Your task to perform on an android device: Open Youtube and go to "Your channel" Image 0: 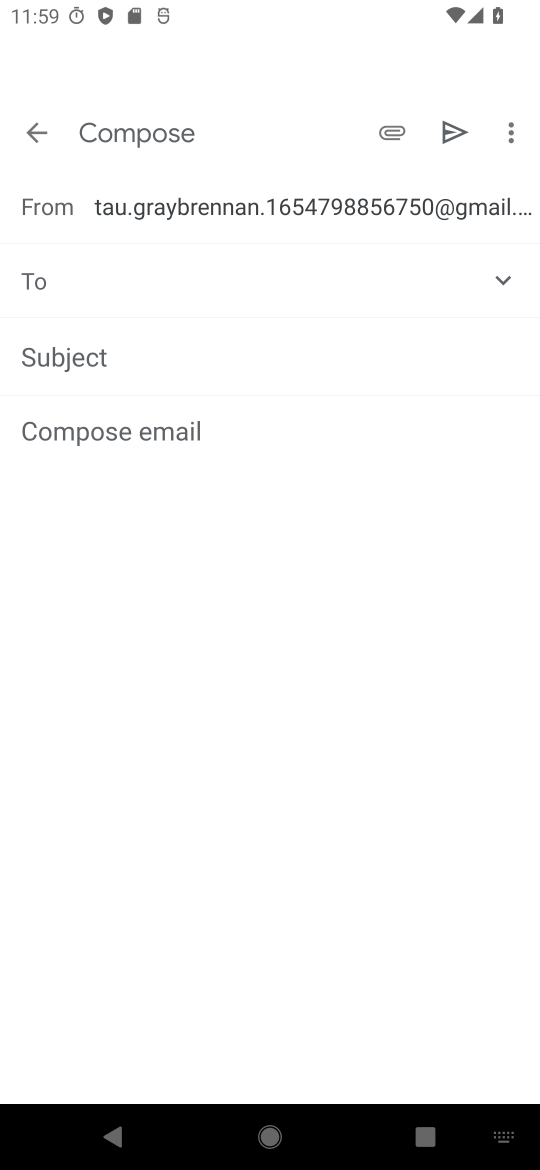
Step 0: press home button
Your task to perform on an android device: Open Youtube and go to "Your channel" Image 1: 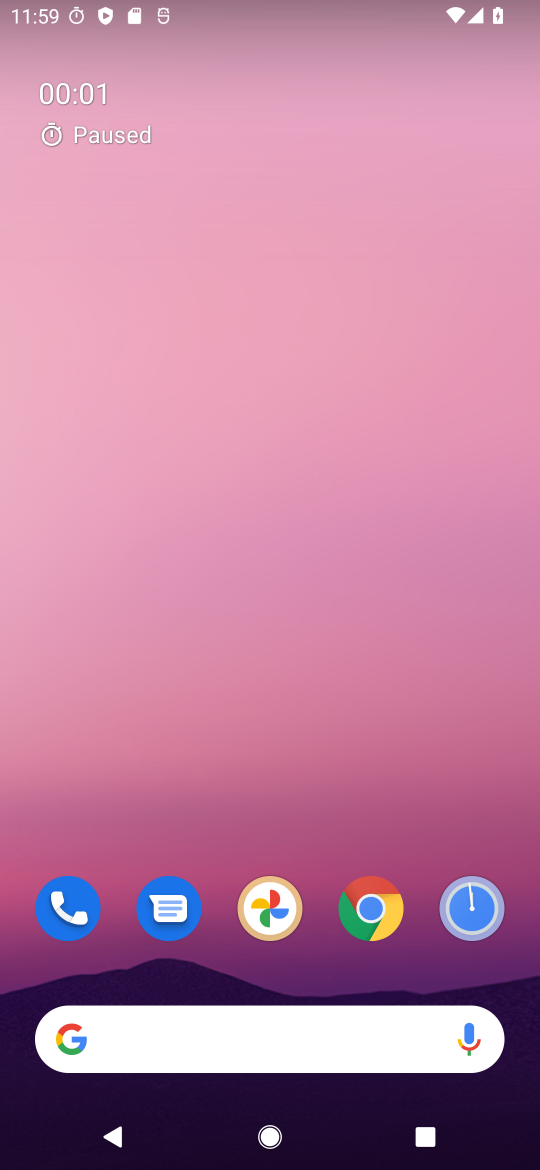
Step 1: drag from (314, 961) to (376, 8)
Your task to perform on an android device: Open Youtube and go to "Your channel" Image 2: 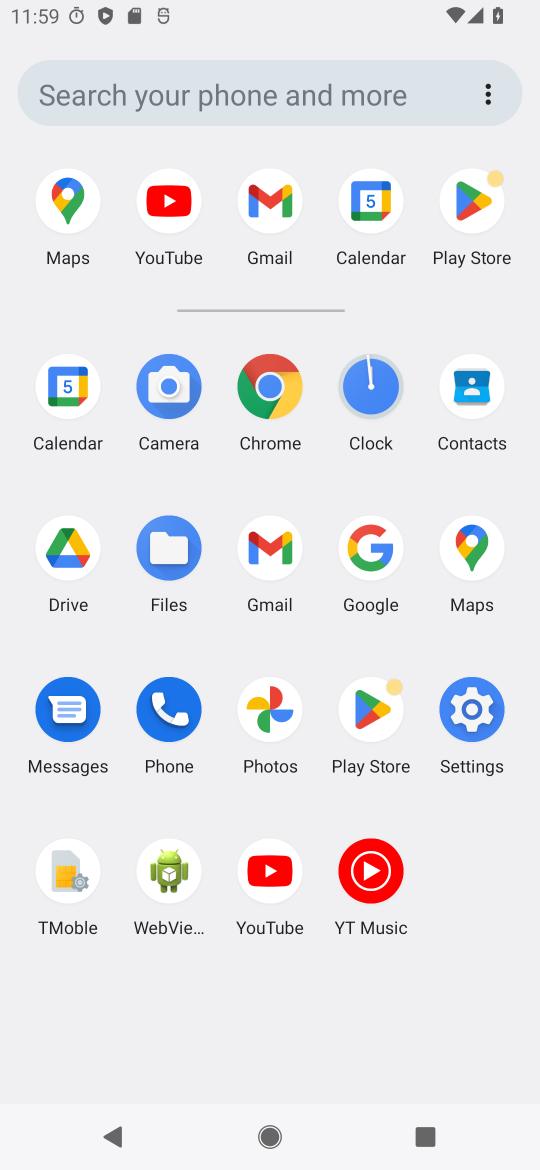
Step 2: click (269, 869)
Your task to perform on an android device: Open Youtube and go to "Your channel" Image 3: 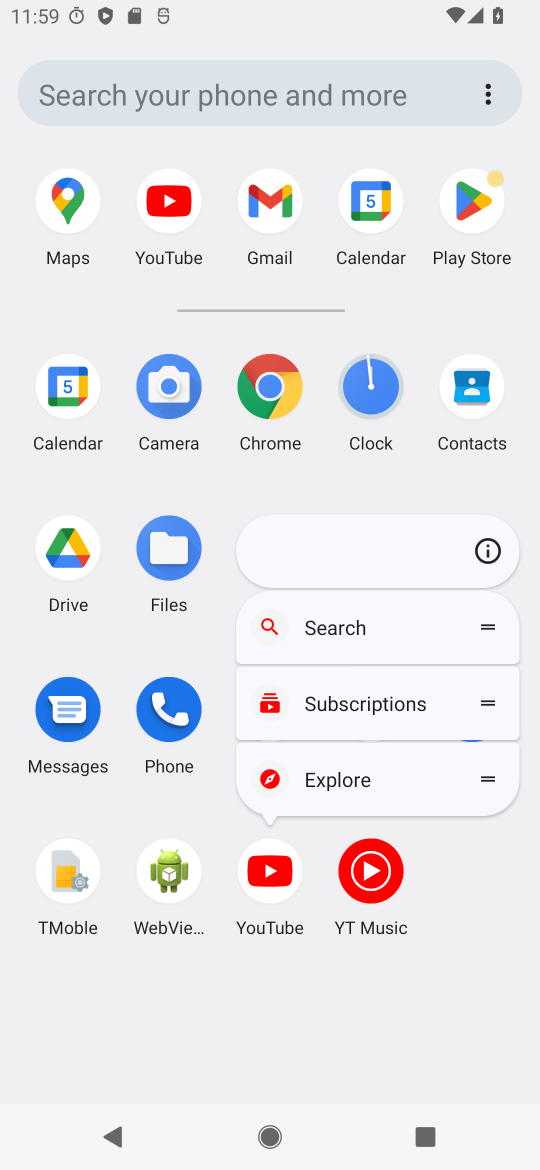
Step 3: click (269, 869)
Your task to perform on an android device: Open Youtube and go to "Your channel" Image 4: 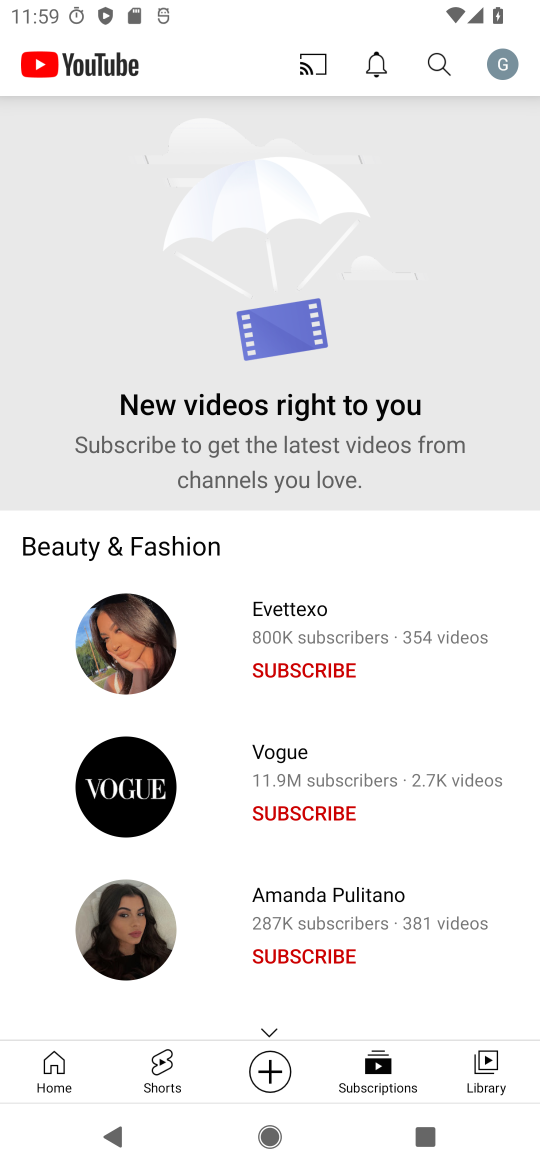
Step 4: click (480, 1056)
Your task to perform on an android device: Open Youtube and go to "Your channel" Image 5: 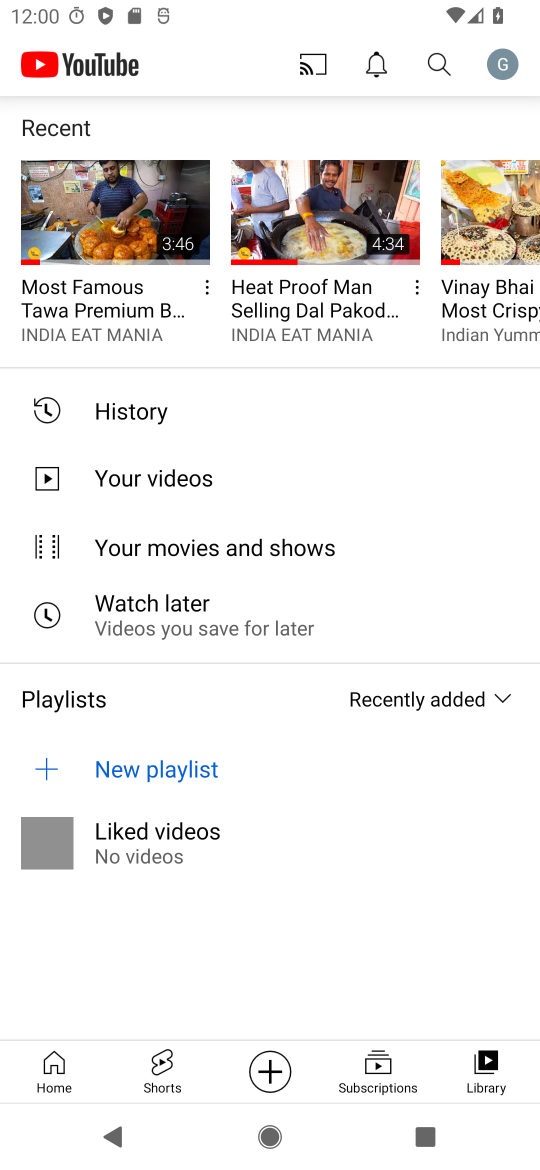
Step 5: click (503, 74)
Your task to perform on an android device: Open Youtube and go to "Your channel" Image 6: 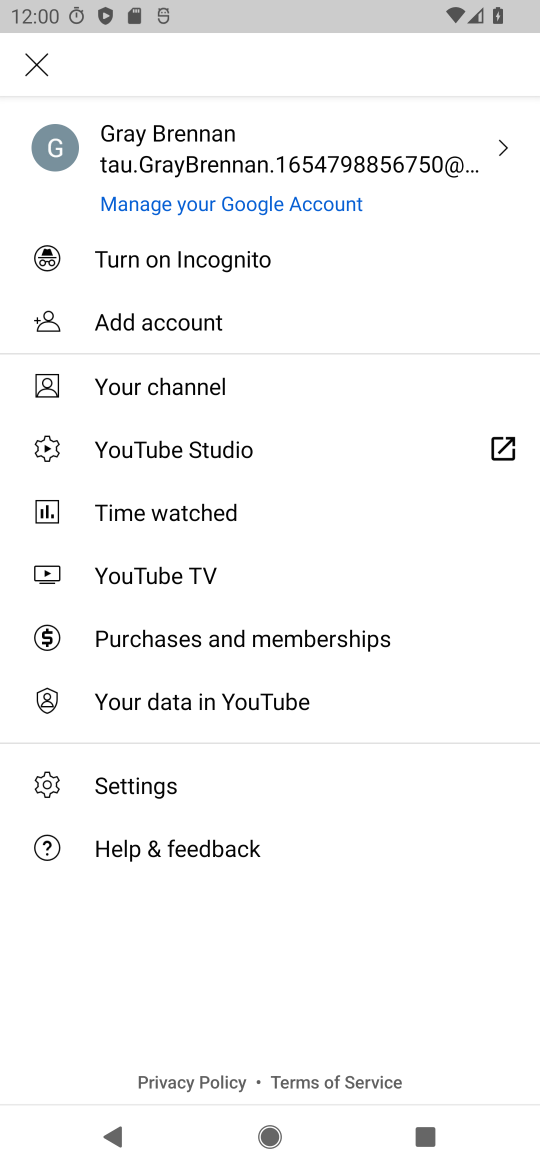
Step 6: click (197, 388)
Your task to perform on an android device: Open Youtube and go to "Your channel" Image 7: 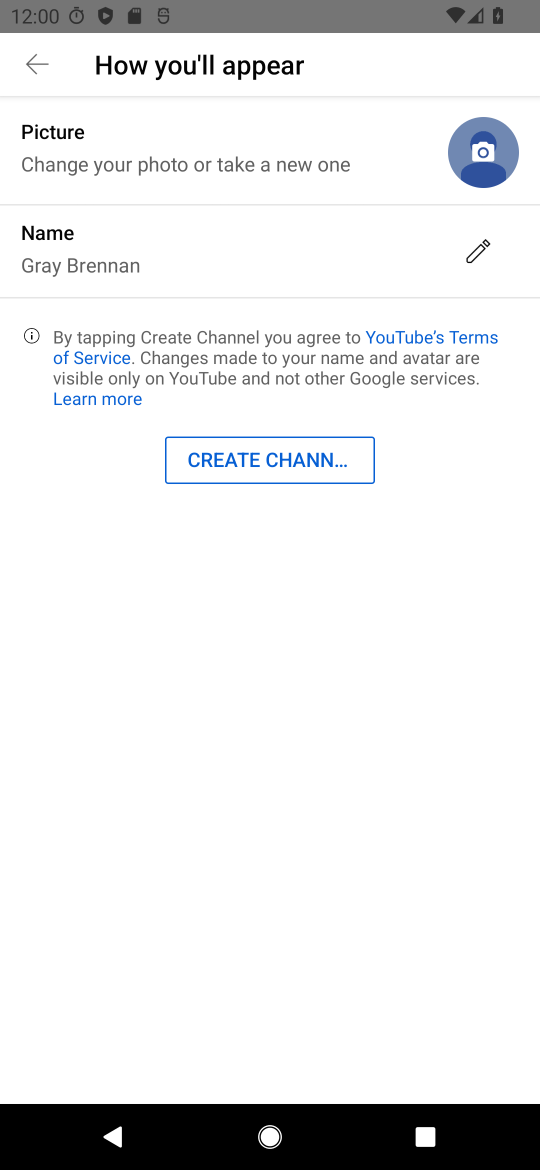
Step 7: task complete